Your task to perform on an android device: Do I have any events this weekend? Image 0: 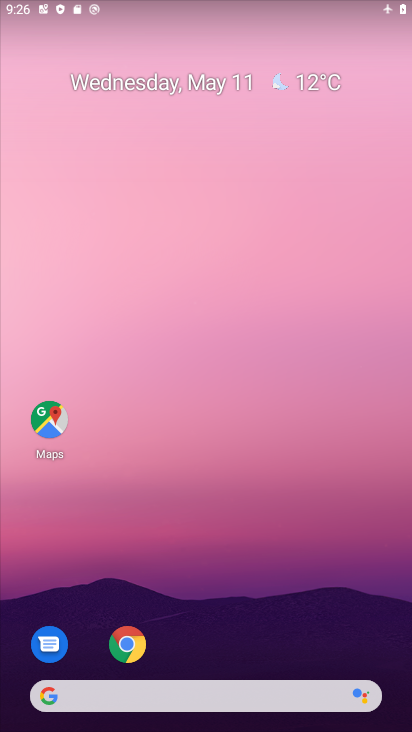
Step 0: drag from (210, 644) to (170, 411)
Your task to perform on an android device: Do I have any events this weekend? Image 1: 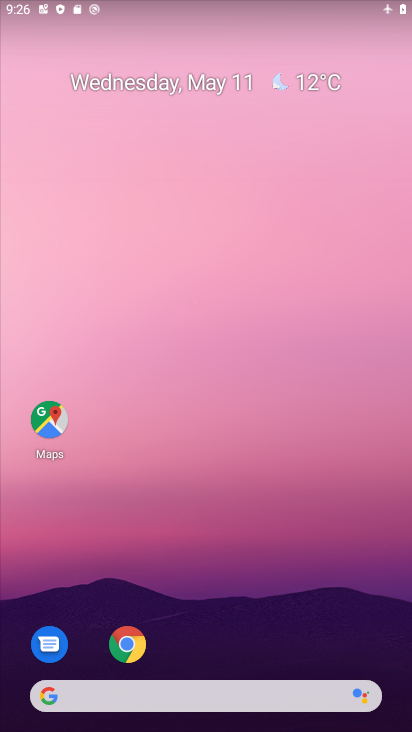
Step 1: drag from (200, 666) to (116, 176)
Your task to perform on an android device: Do I have any events this weekend? Image 2: 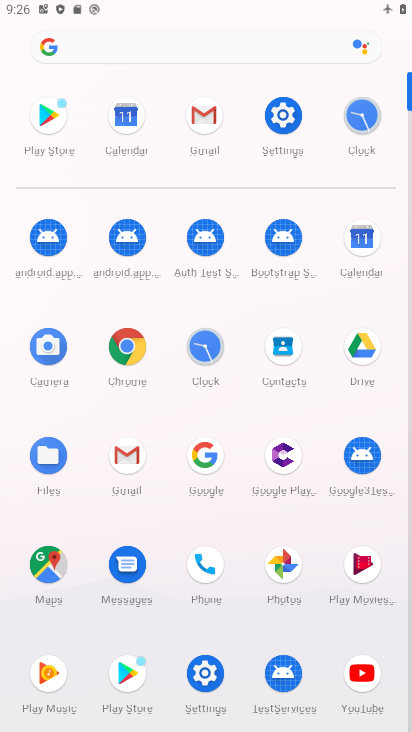
Step 2: click (123, 141)
Your task to perform on an android device: Do I have any events this weekend? Image 3: 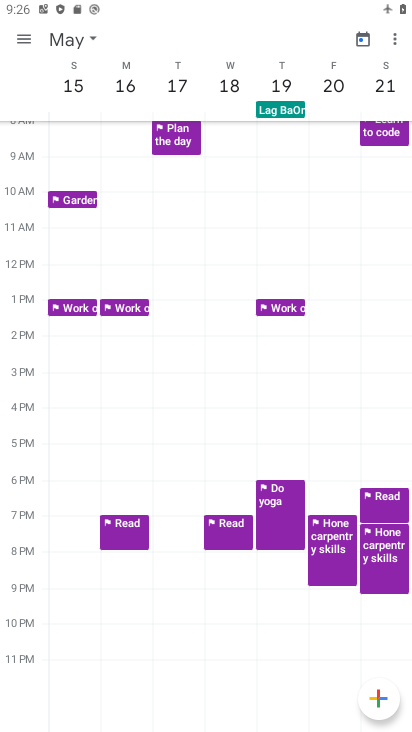
Step 3: drag from (68, 86) to (381, 77)
Your task to perform on an android device: Do I have any events this weekend? Image 4: 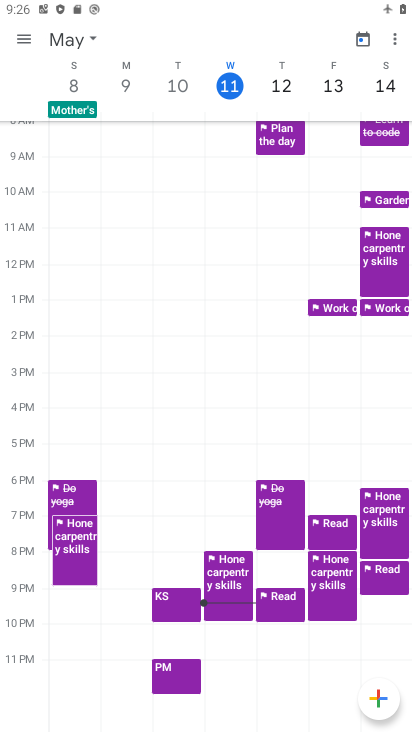
Step 4: click (391, 84)
Your task to perform on an android device: Do I have any events this weekend? Image 5: 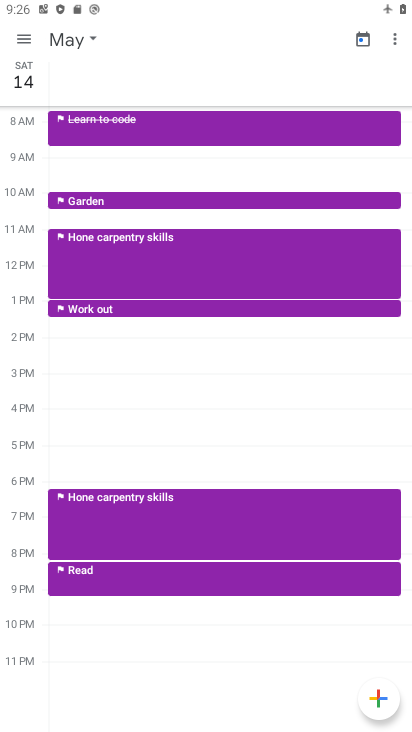
Step 5: click (21, 38)
Your task to perform on an android device: Do I have any events this weekend? Image 6: 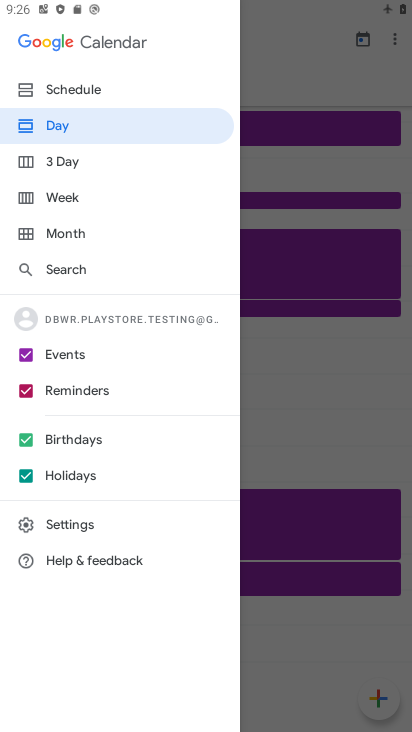
Step 6: click (31, 84)
Your task to perform on an android device: Do I have any events this weekend? Image 7: 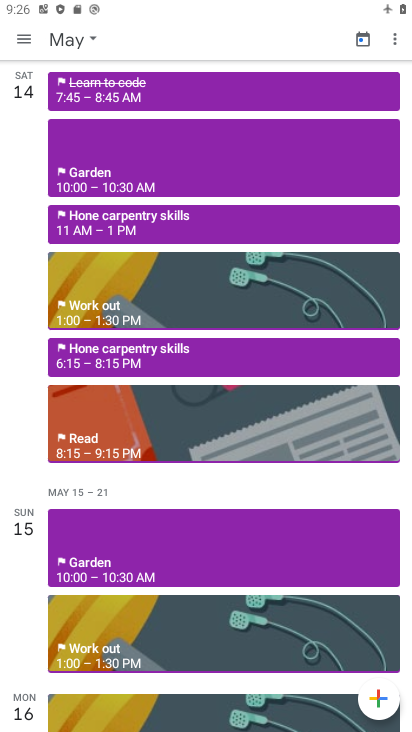
Step 7: task complete